Your task to perform on an android device: turn off priority inbox in the gmail app Image 0: 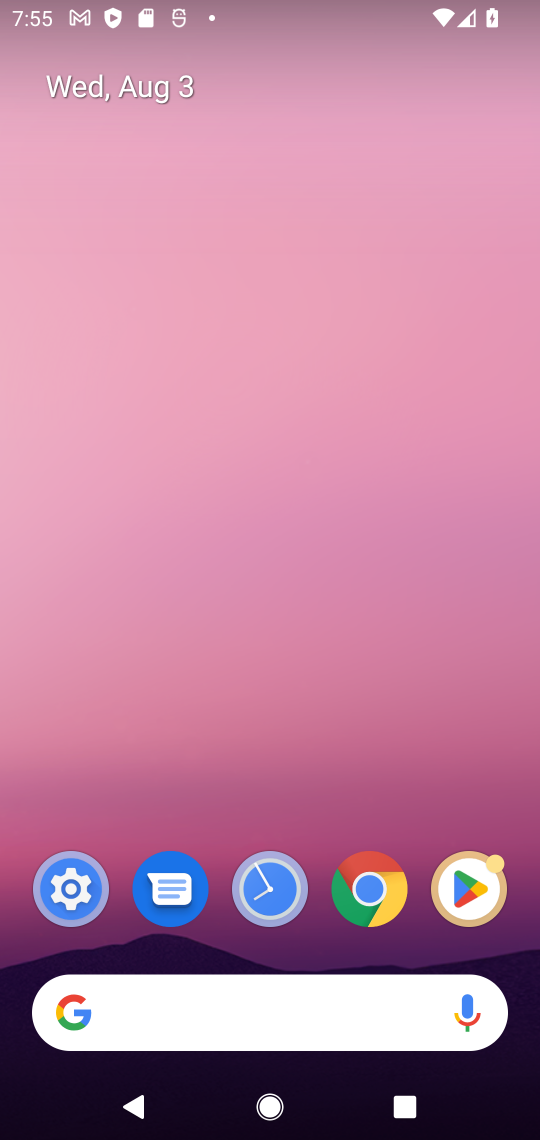
Step 0: drag from (194, 782) to (93, 252)
Your task to perform on an android device: turn off priority inbox in the gmail app Image 1: 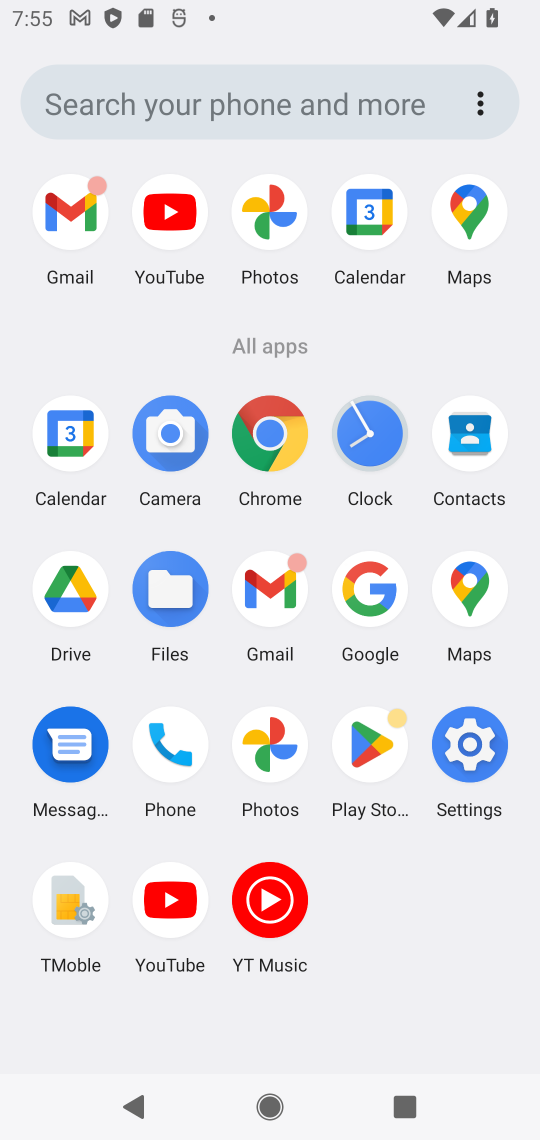
Step 1: click (270, 584)
Your task to perform on an android device: turn off priority inbox in the gmail app Image 2: 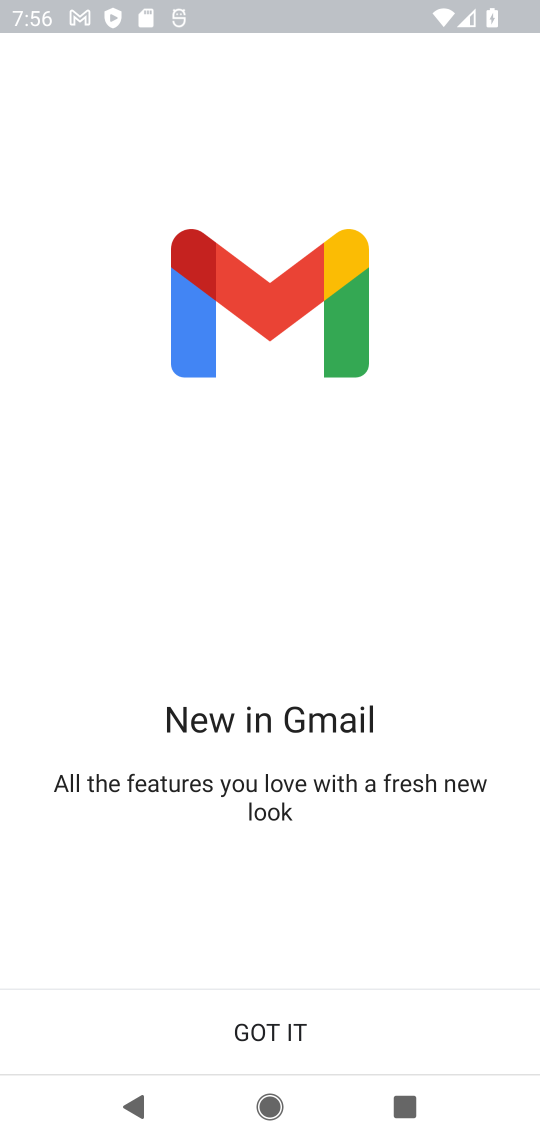
Step 2: click (286, 1044)
Your task to perform on an android device: turn off priority inbox in the gmail app Image 3: 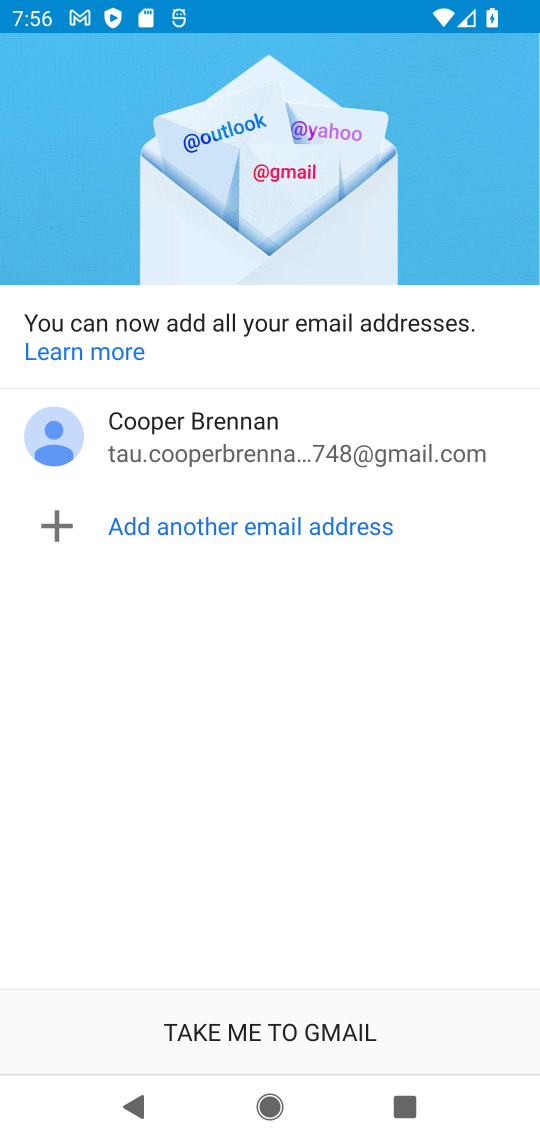
Step 3: click (328, 1030)
Your task to perform on an android device: turn off priority inbox in the gmail app Image 4: 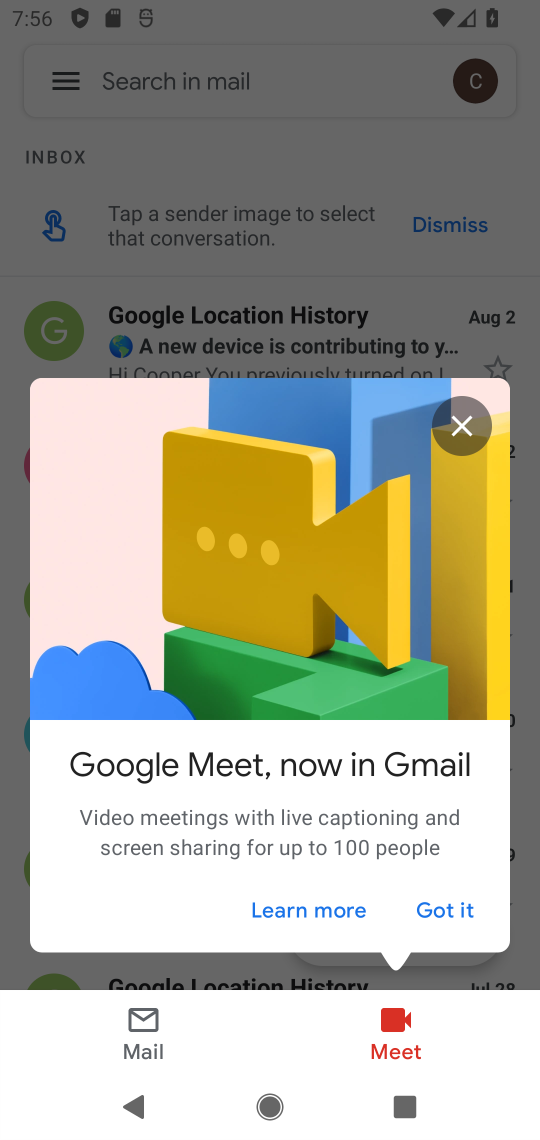
Step 4: click (451, 413)
Your task to perform on an android device: turn off priority inbox in the gmail app Image 5: 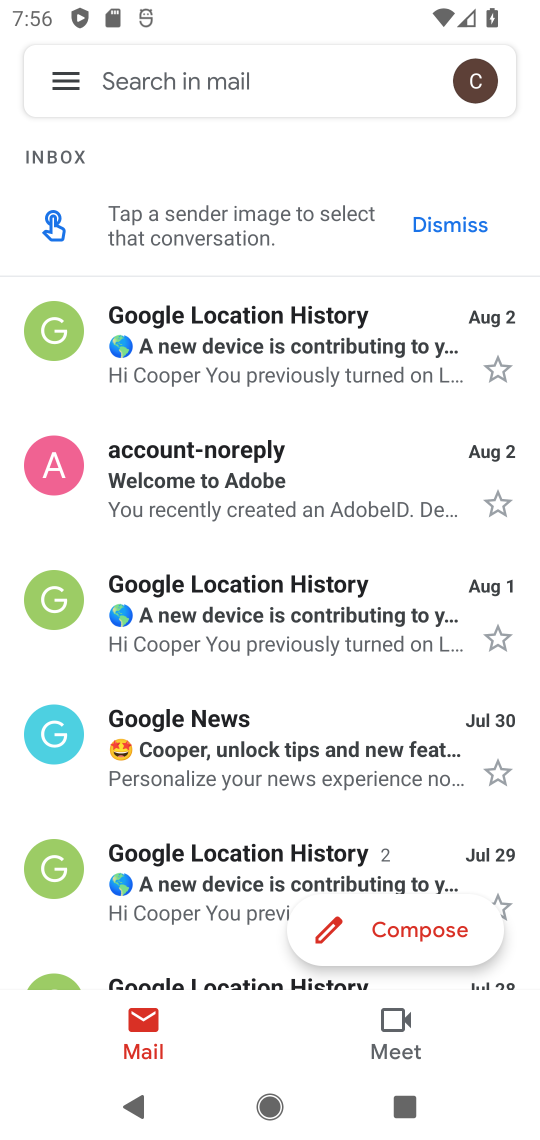
Step 5: click (62, 77)
Your task to perform on an android device: turn off priority inbox in the gmail app Image 6: 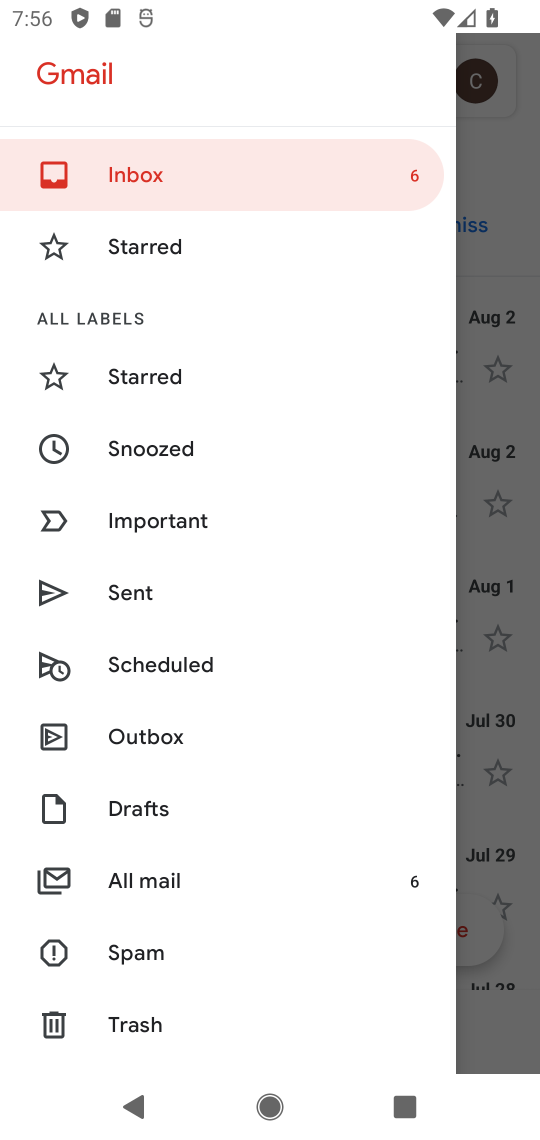
Step 6: drag from (153, 904) to (98, 471)
Your task to perform on an android device: turn off priority inbox in the gmail app Image 7: 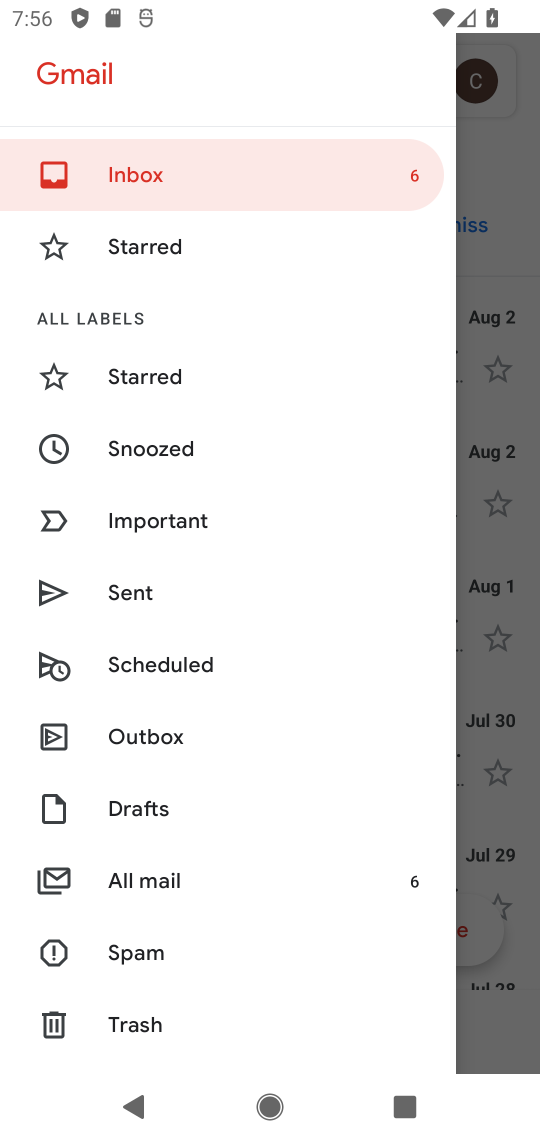
Step 7: drag from (126, 1018) to (139, 554)
Your task to perform on an android device: turn off priority inbox in the gmail app Image 8: 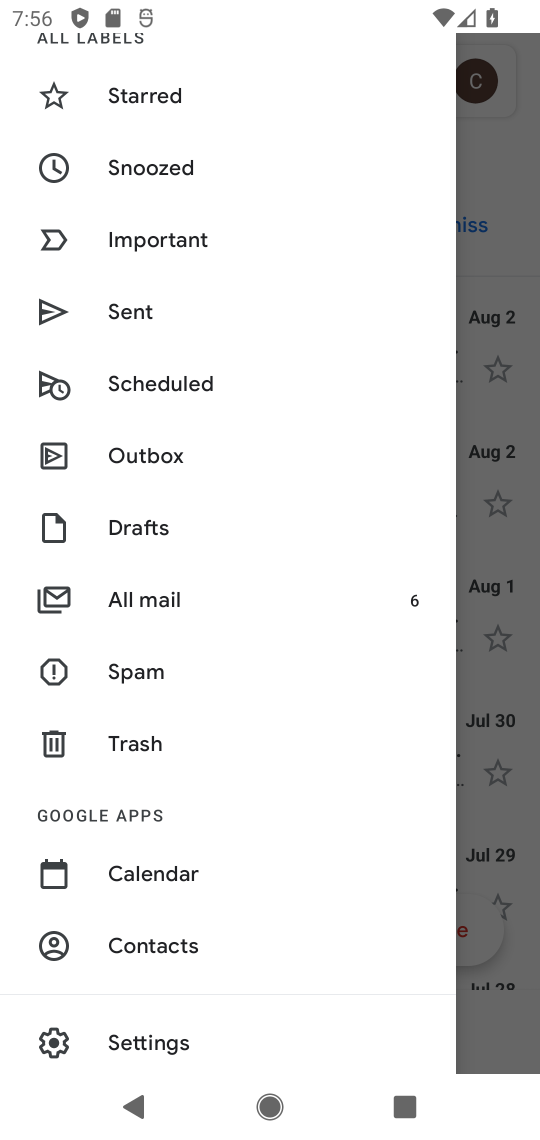
Step 8: click (138, 1047)
Your task to perform on an android device: turn off priority inbox in the gmail app Image 9: 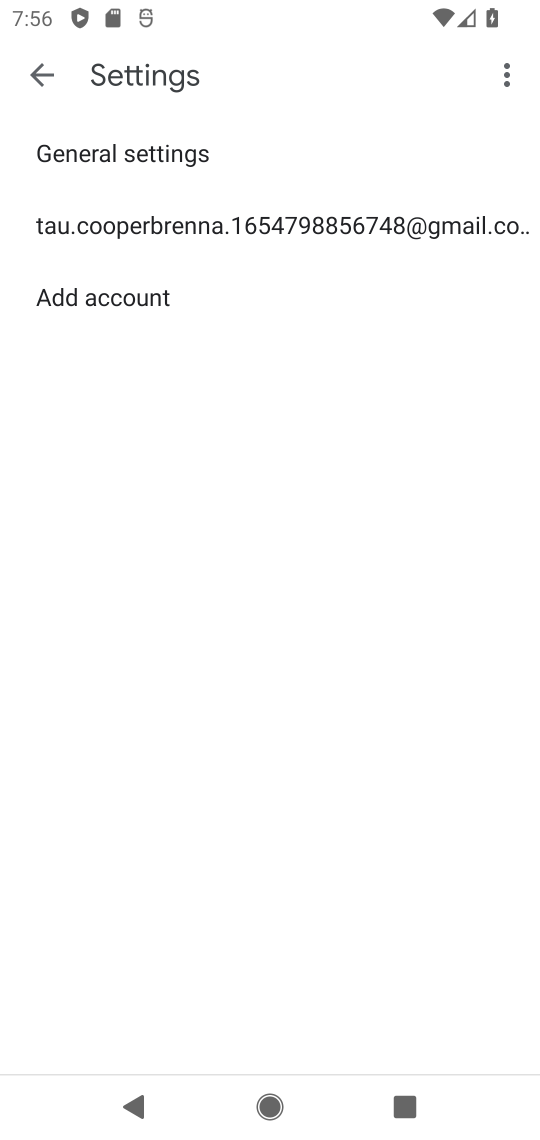
Step 9: click (160, 223)
Your task to perform on an android device: turn off priority inbox in the gmail app Image 10: 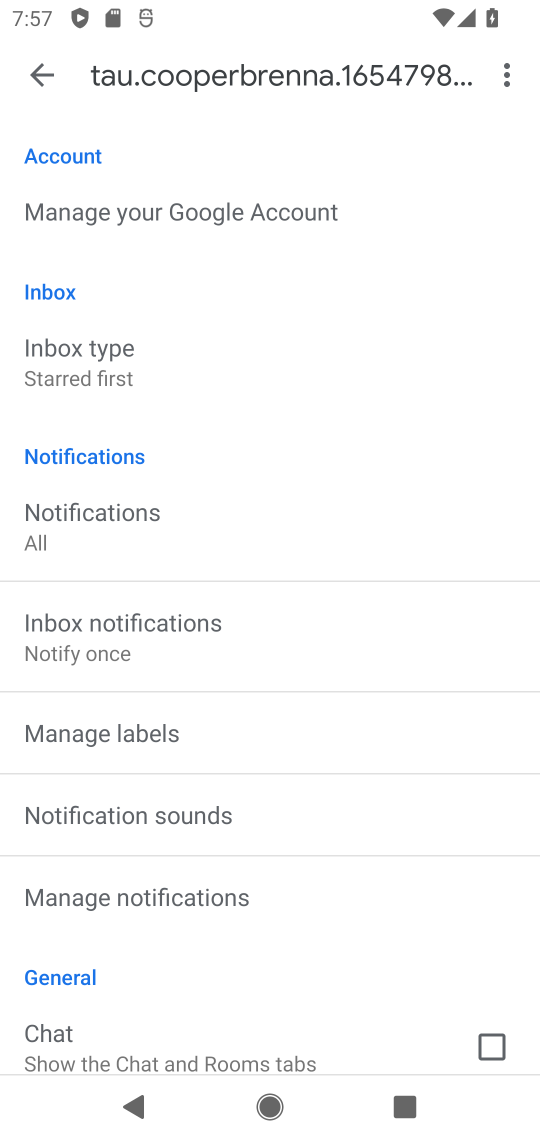
Step 10: click (129, 359)
Your task to perform on an android device: turn off priority inbox in the gmail app Image 11: 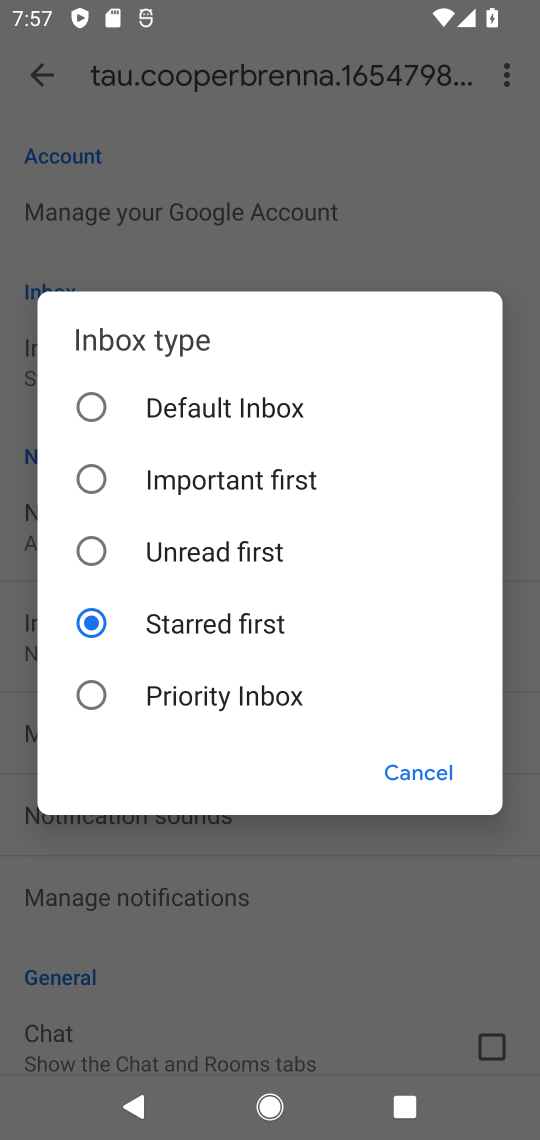
Step 11: click (169, 621)
Your task to perform on an android device: turn off priority inbox in the gmail app Image 12: 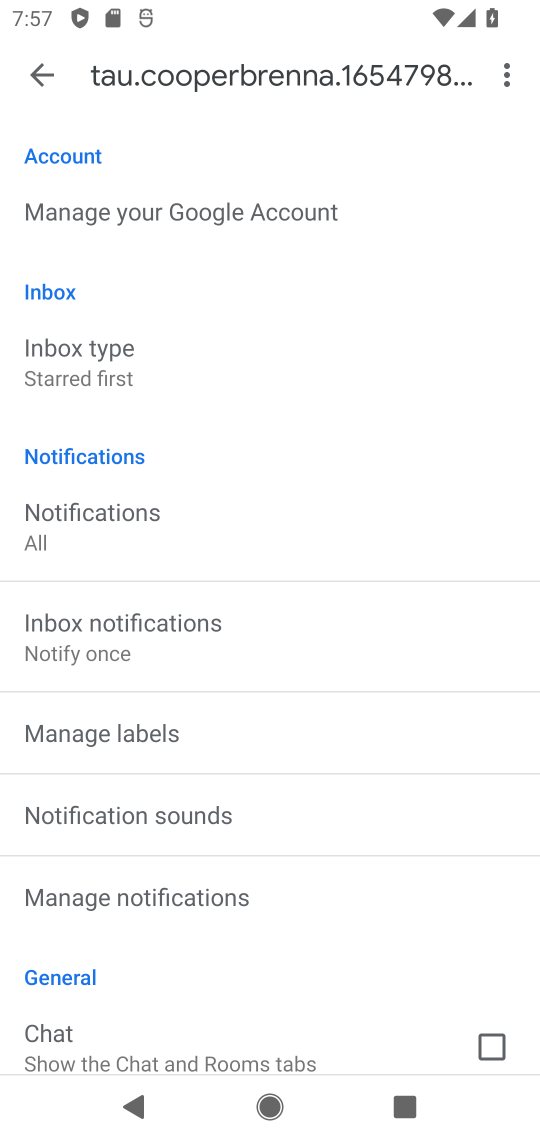
Step 12: task complete